Your task to perform on an android device: clear all cookies in the chrome app Image 0: 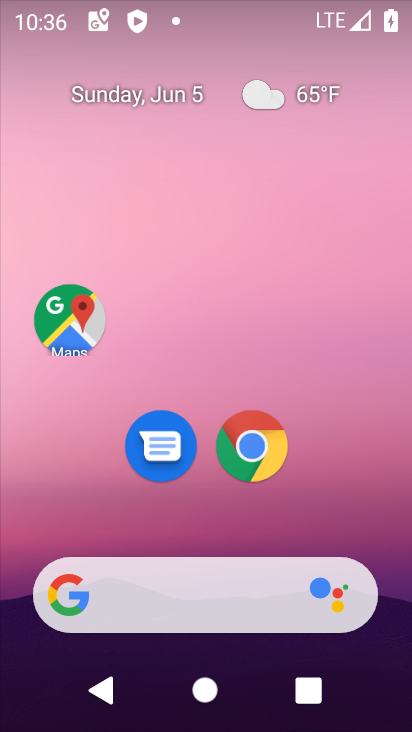
Step 0: drag from (200, 543) to (178, 171)
Your task to perform on an android device: clear all cookies in the chrome app Image 1: 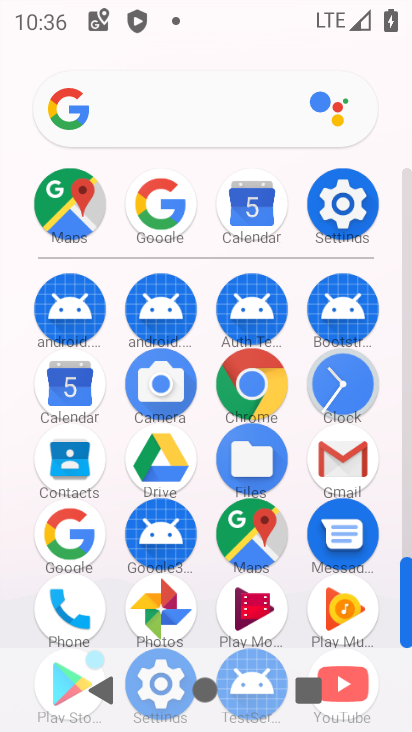
Step 1: click (263, 382)
Your task to perform on an android device: clear all cookies in the chrome app Image 2: 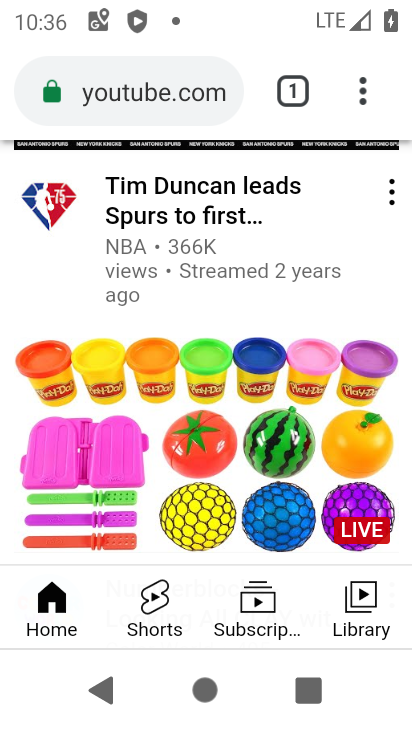
Step 2: click (358, 86)
Your task to perform on an android device: clear all cookies in the chrome app Image 3: 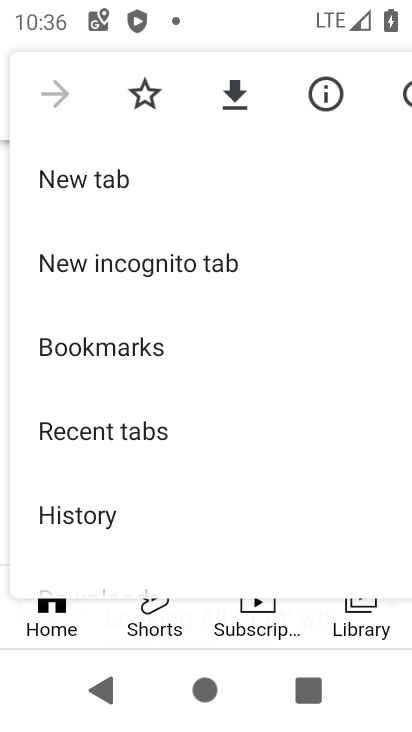
Step 3: click (106, 518)
Your task to perform on an android device: clear all cookies in the chrome app Image 4: 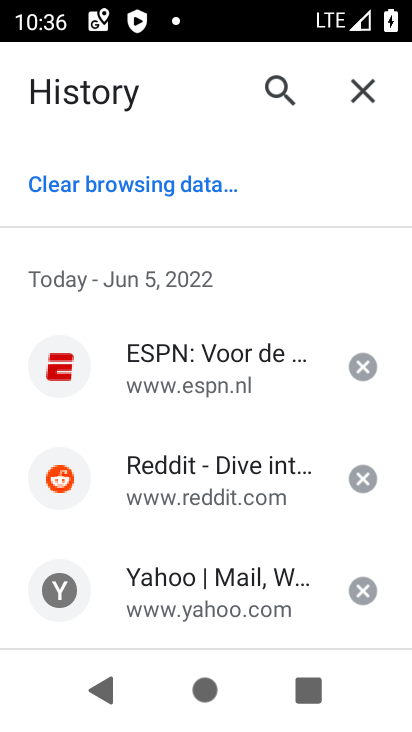
Step 4: click (113, 188)
Your task to perform on an android device: clear all cookies in the chrome app Image 5: 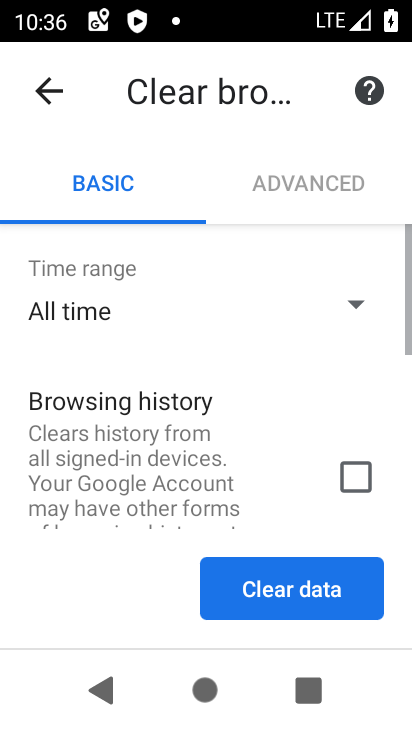
Step 5: click (359, 484)
Your task to perform on an android device: clear all cookies in the chrome app Image 6: 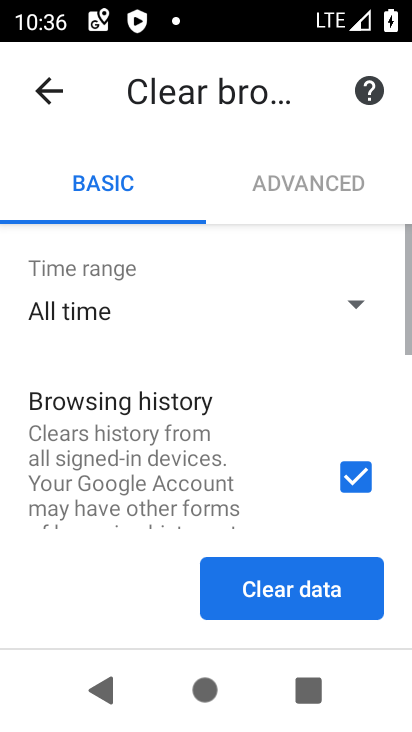
Step 6: drag from (254, 495) to (252, 250)
Your task to perform on an android device: clear all cookies in the chrome app Image 7: 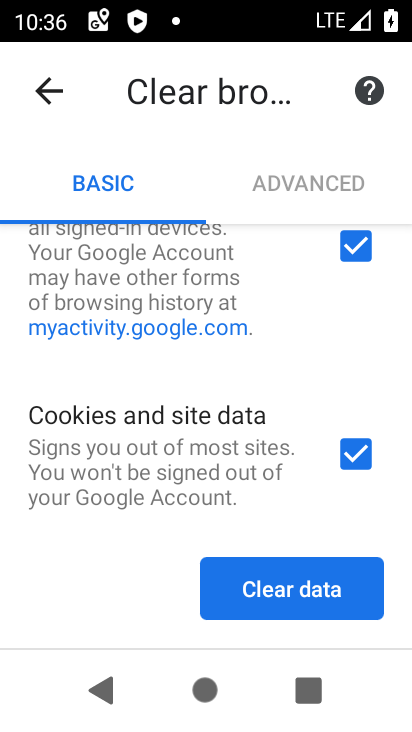
Step 7: drag from (253, 474) to (250, 208)
Your task to perform on an android device: clear all cookies in the chrome app Image 8: 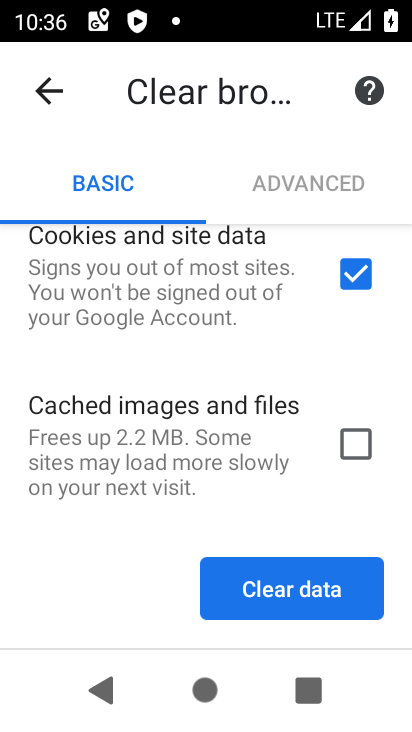
Step 8: click (344, 442)
Your task to perform on an android device: clear all cookies in the chrome app Image 9: 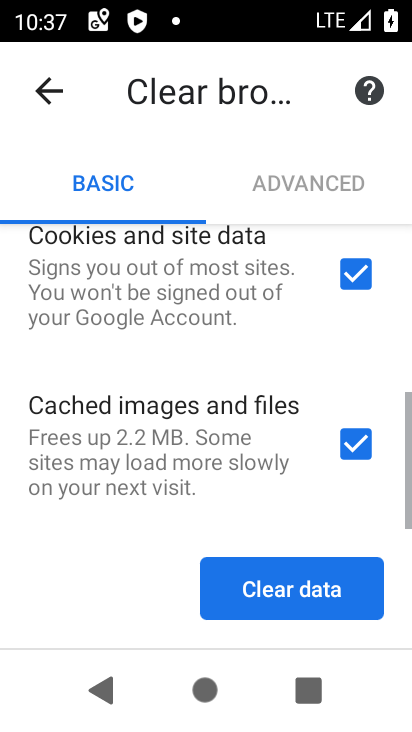
Step 9: click (287, 567)
Your task to perform on an android device: clear all cookies in the chrome app Image 10: 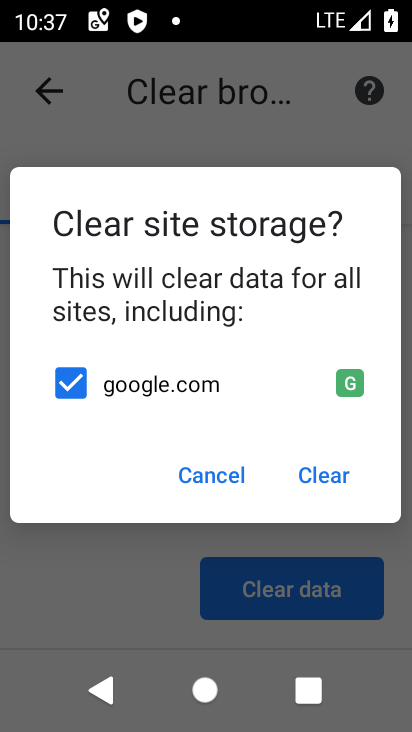
Step 10: click (325, 491)
Your task to perform on an android device: clear all cookies in the chrome app Image 11: 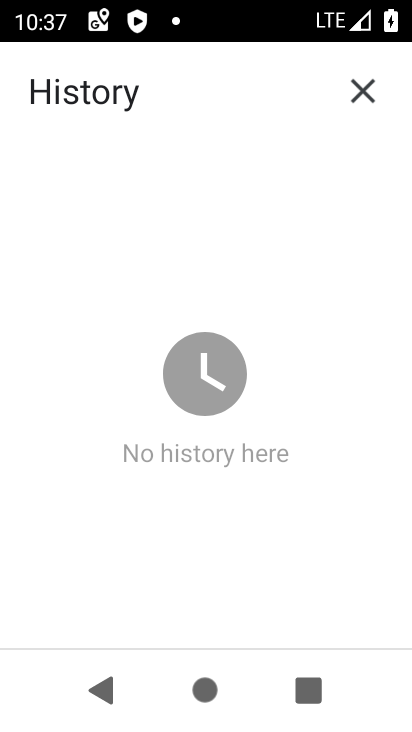
Step 11: task complete